Your task to perform on an android device: Open settings on Google Maps Image 0: 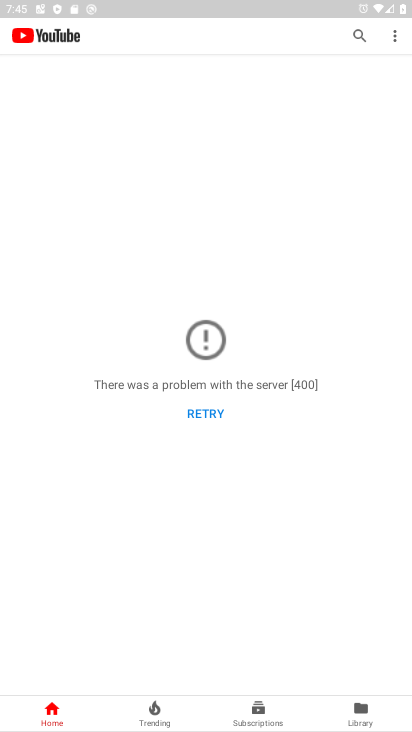
Step 0: press home button
Your task to perform on an android device: Open settings on Google Maps Image 1: 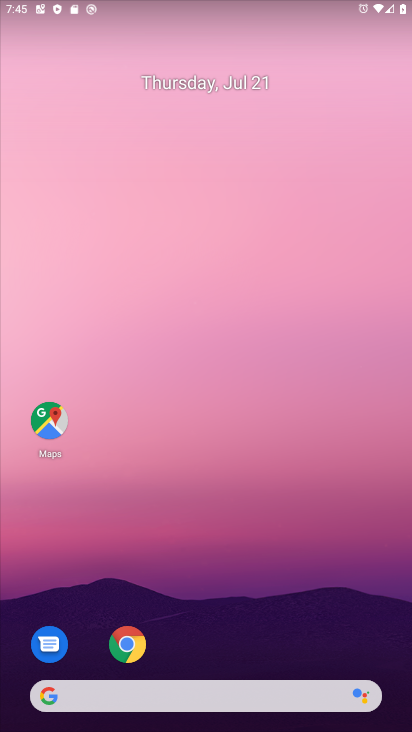
Step 1: click (58, 408)
Your task to perform on an android device: Open settings on Google Maps Image 2: 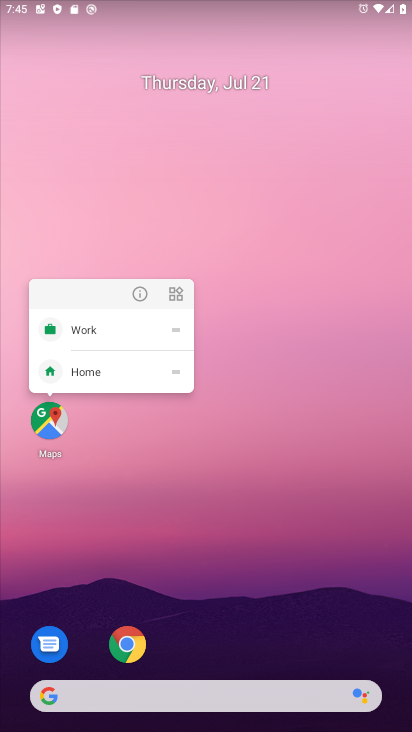
Step 2: click (56, 423)
Your task to perform on an android device: Open settings on Google Maps Image 3: 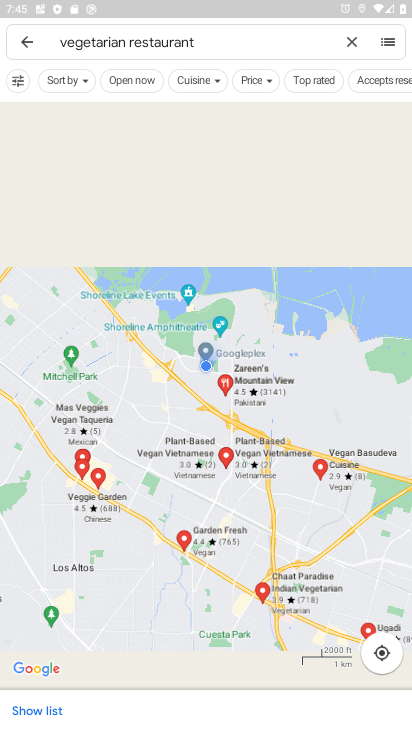
Step 3: click (29, 53)
Your task to perform on an android device: Open settings on Google Maps Image 4: 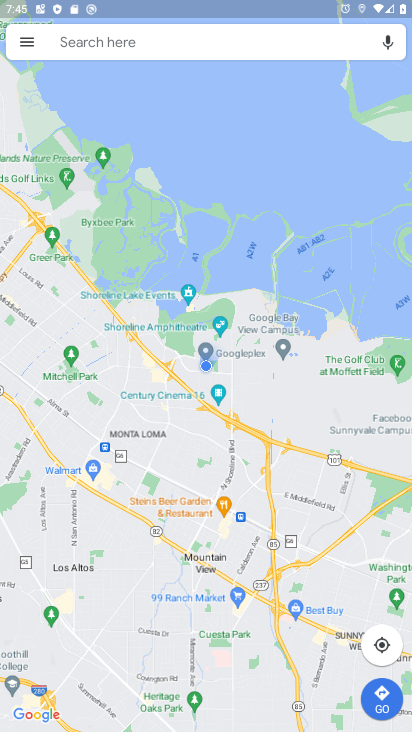
Step 4: click (30, 32)
Your task to perform on an android device: Open settings on Google Maps Image 5: 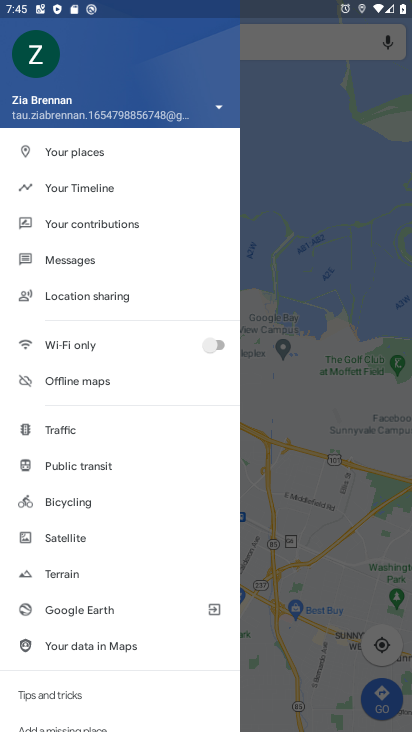
Step 5: drag from (99, 658) to (93, 273)
Your task to perform on an android device: Open settings on Google Maps Image 6: 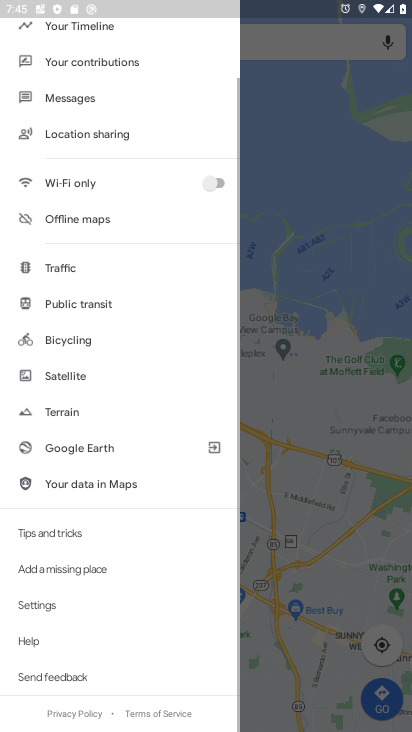
Step 6: click (18, 597)
Your task to perform on an android device: Open settings on Google Maps Image 7: 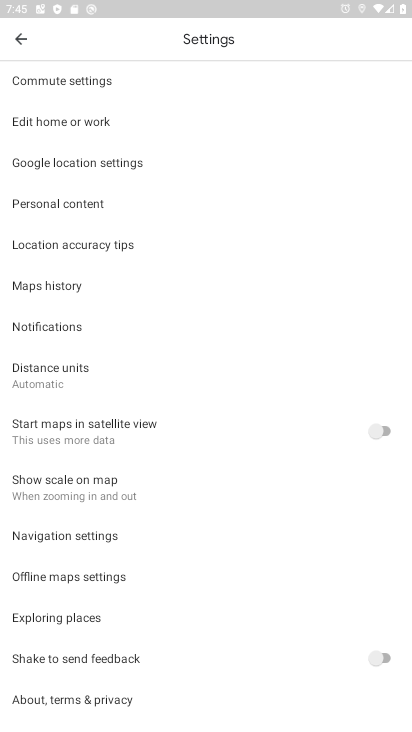
Step 7: click (182, 135)
Your task to perform on an android device: Open settings on Google Maps Image 8: 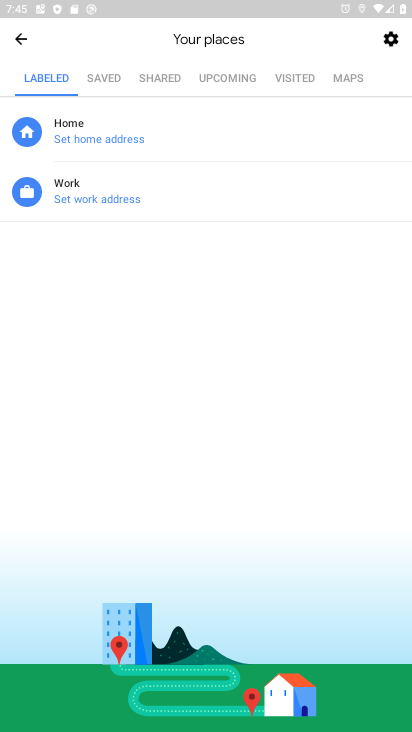
Step 8: click (19, 36)
Your task to perform on an android device: Open settings on Google Maps Image 9: 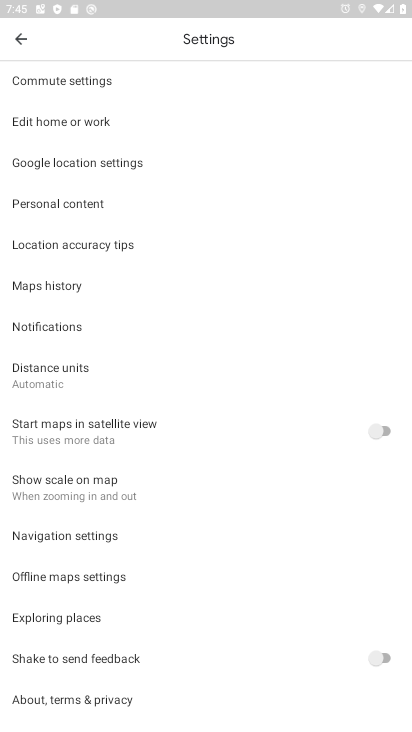
Step 9: task complete